Your task to perform on an android device: turn smart compose on in the gmail app Image 0: 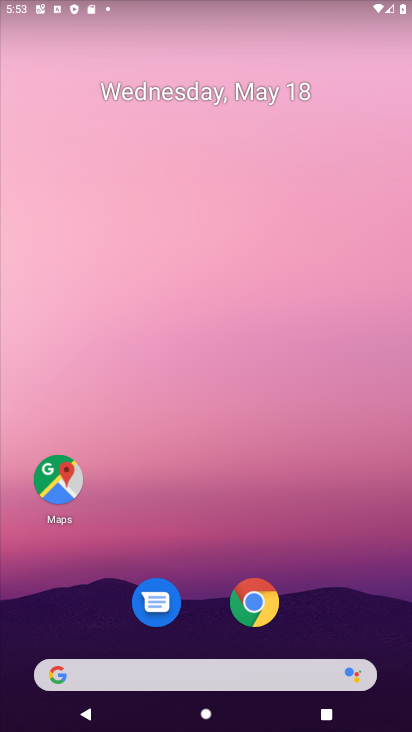
Step 0: drag from (311, 671) to (330, 84)
Your task to perform on an android device: turn smart compose on in the gmail app Image 1: 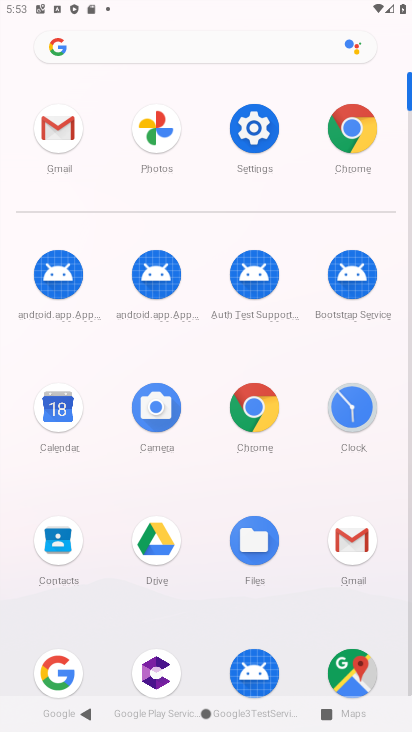
Step 1: click (358, 534)
Your task to perform on an android device: turn smart compose on in the gmail app Image 2: 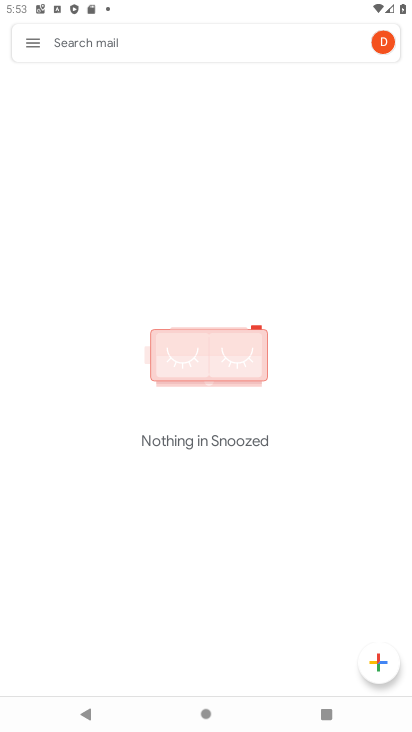
Step 2: click (48, 41)
Your task to perform on an android device: turn smart compose on in the gmail app Image 3: 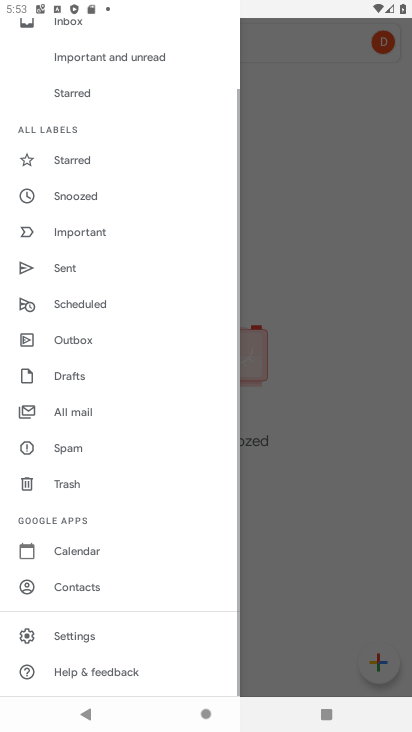
Step 3: click (110, 653)
Your task to perform on an android device: turn smart compose on in the gmail app Image 4: 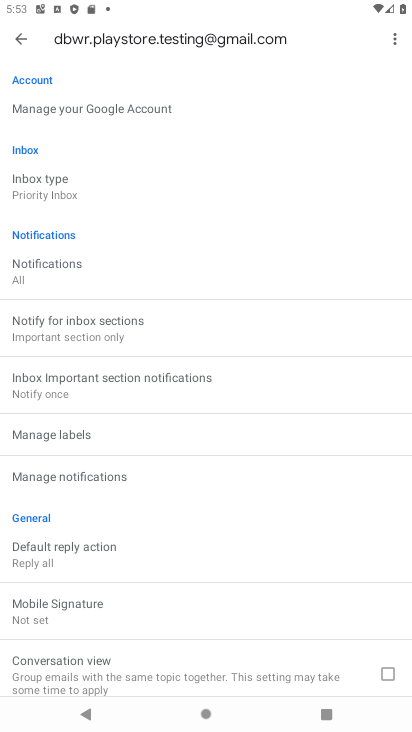
Step 4: task complete